Your task to perform on an android device: show emergency info Image 0: 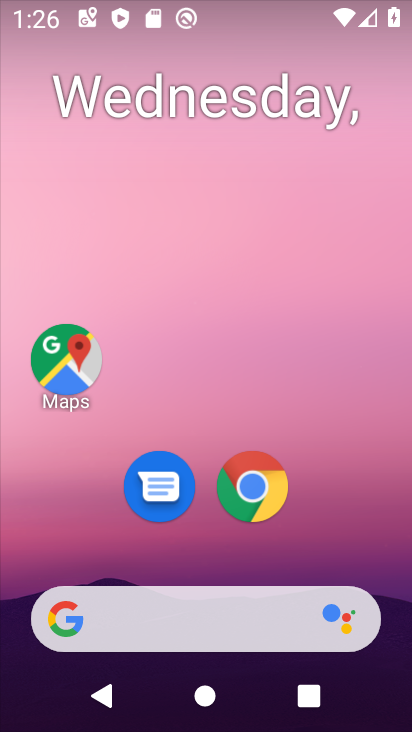
Step 0: drag from (166, 504) to (222, 28)
Your task to perform on an android device: show emergency info Image 1: 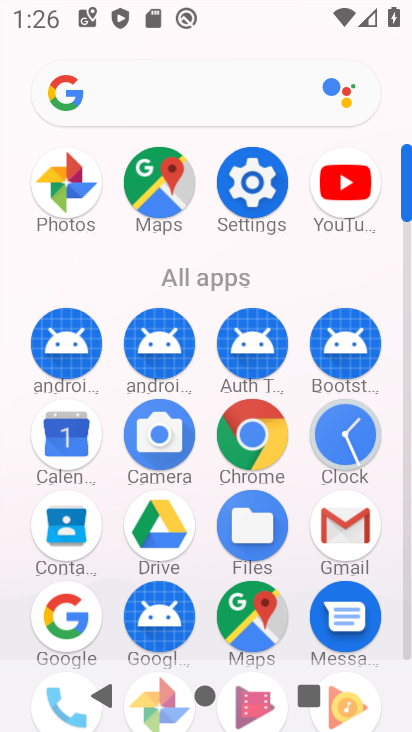
Step 1: click (254, 186)
Your task to perform on an android device: show emergency info Image 2: 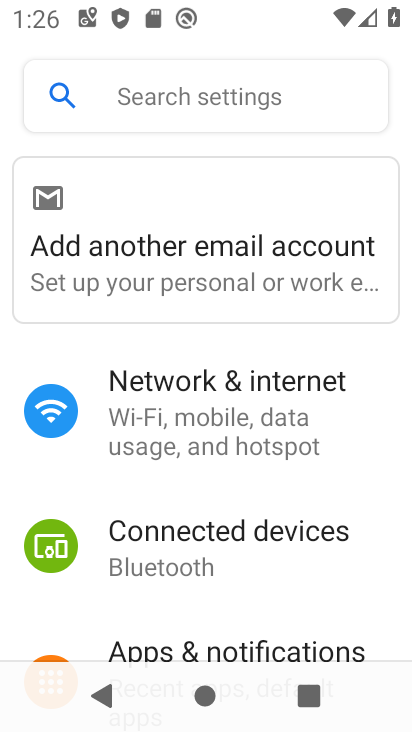
Step 2: drag from (168, 595) to (244, 72)
Your task to perform on an android device: show emergency info Image 3: 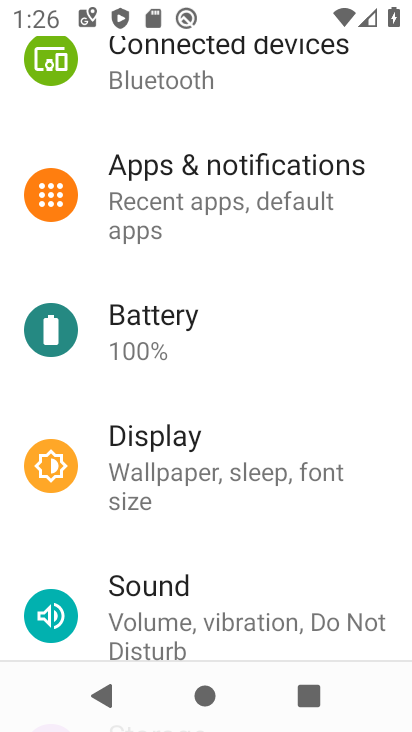
Step 3: drag from (213, 552) to (284, 66)
Your task to perform on an android device: show emergency info Image 4: 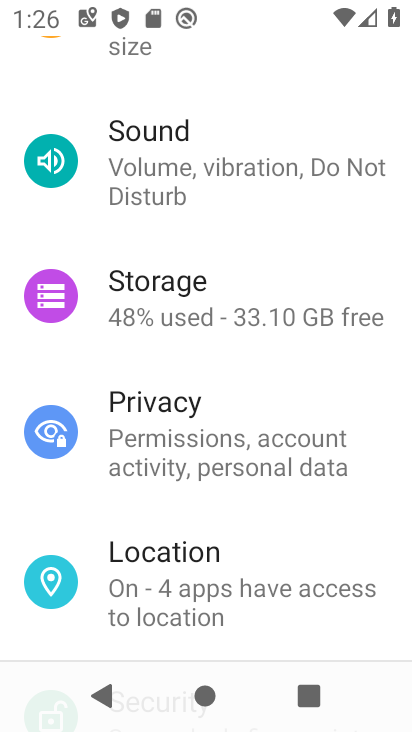
Step 4: drag from (217, 490) to (281, 33)
Your task to perform on an android device: show emergency info Image 5: 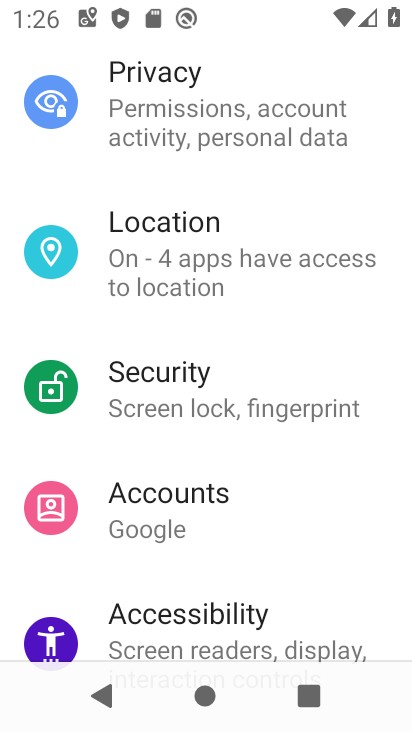
Step 5: drag from (181, 610) to (264, 17)
Your task to perform on an android device: show emergency info Image 6: 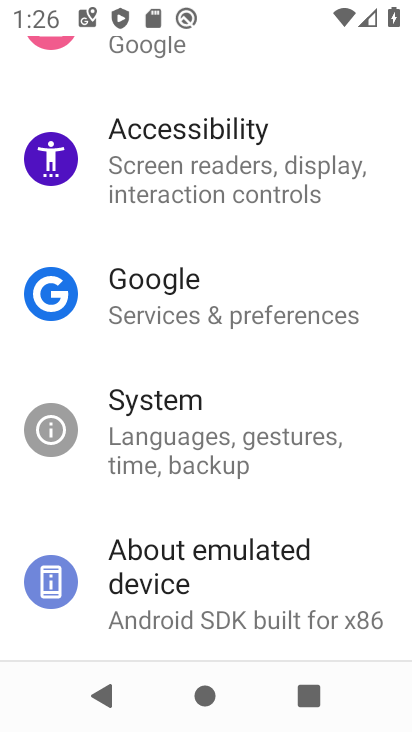
Step 6: drag from (198, 573) to (282, 54)
Your task to perform on an android device: show emergency info Image 7: 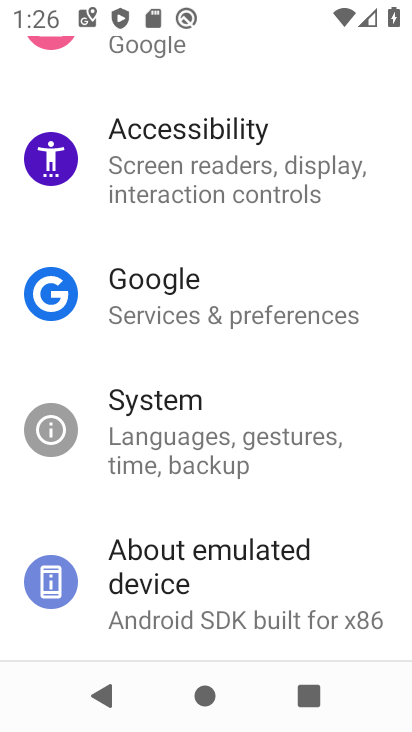
Step 7: click (163, 585)
Your task to perform on an android device: show emergency info Image 8: 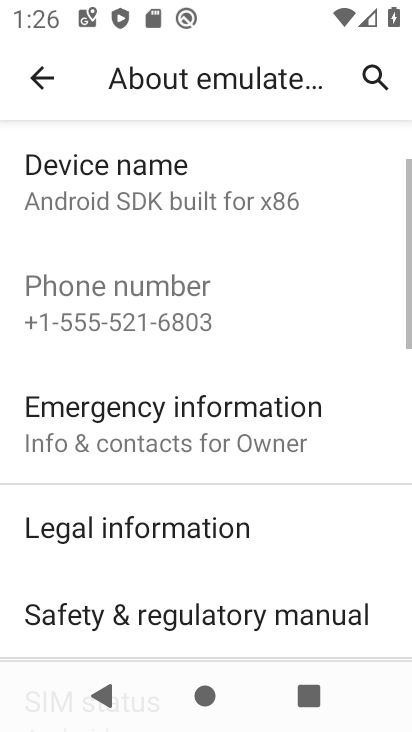
Step 8: click (141, 443)
Your task to perform on an android device: show emergency info Image 9: 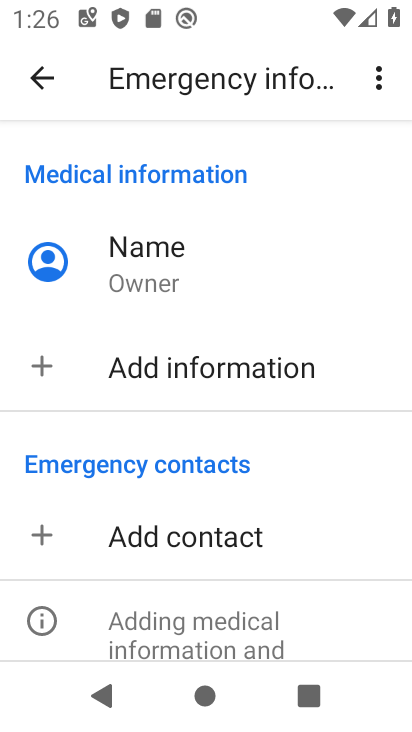
Step 9: task complete